Your task to perform on an android device: turn off smart reply in the gmail app Image 0: 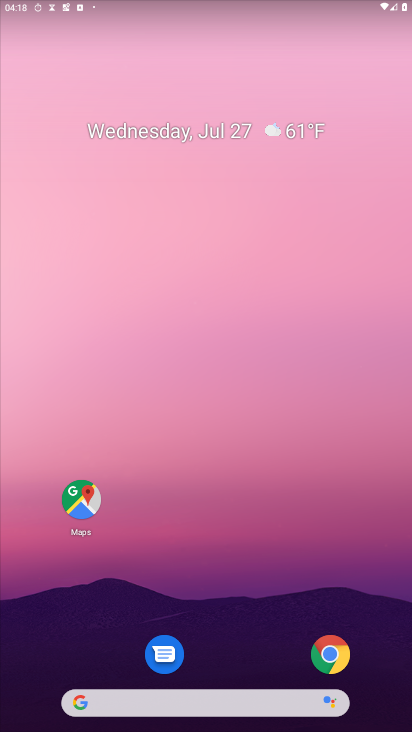
Step 0: drag from (285, 686) to (327, 192)
Your task to perform on an android device: turn off smart reply in the gmail app Image 1: 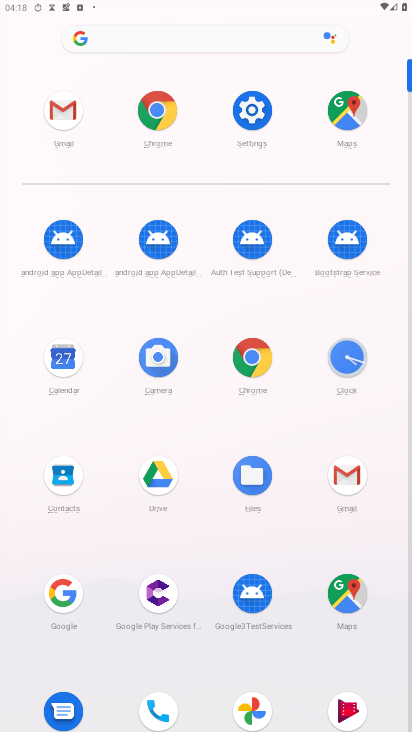
Step 1: click (335, 477)
Your task to perform on an android device: turn off smart reply in the gmail app Image 2: 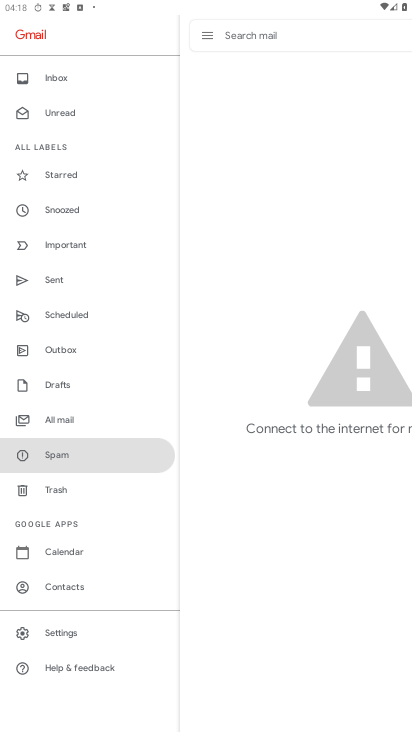
Step 2: click (83, 627)
Your task to perform on an android device: turn off smart reply in the gmail app Image 3: 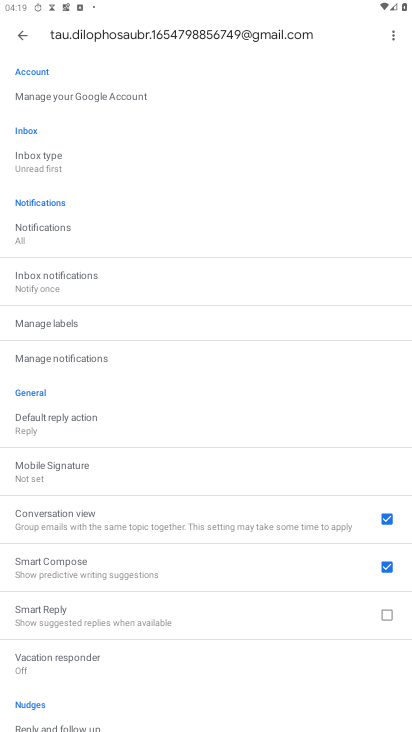
Step 3: task complete